Your task to perform on an android device: Search for "asus rog" on bestbuy.com, select the first entry, add it to the cart, then select checkout. Image 0: 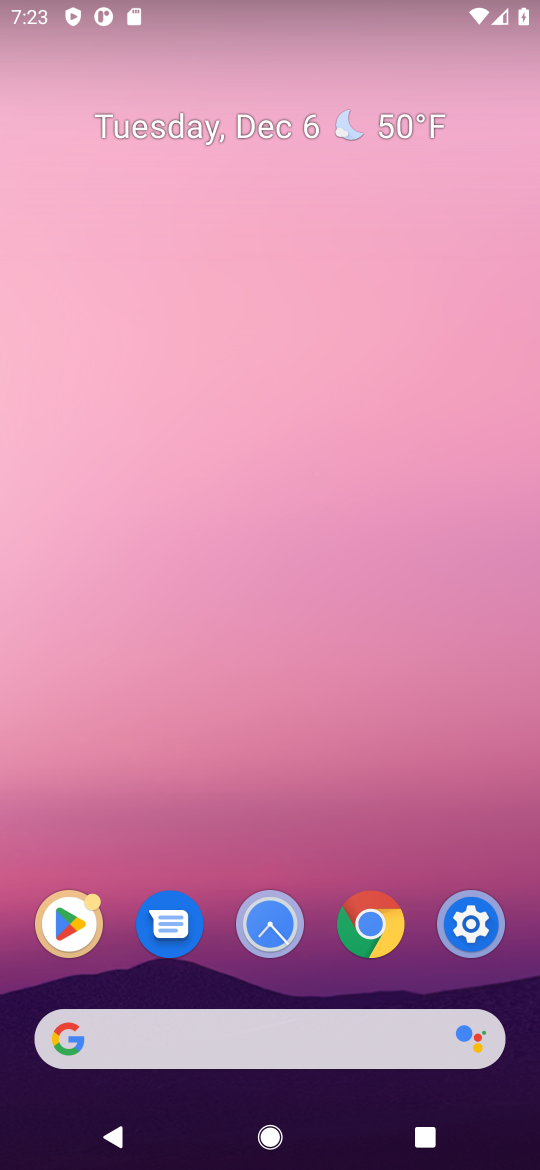
Step 0: click (266, 1061)
Your task to perform on an android device: Search for "asus rog" on bestbuy.com, select the first entry, add it to the cart, then select checkout. Image 1: 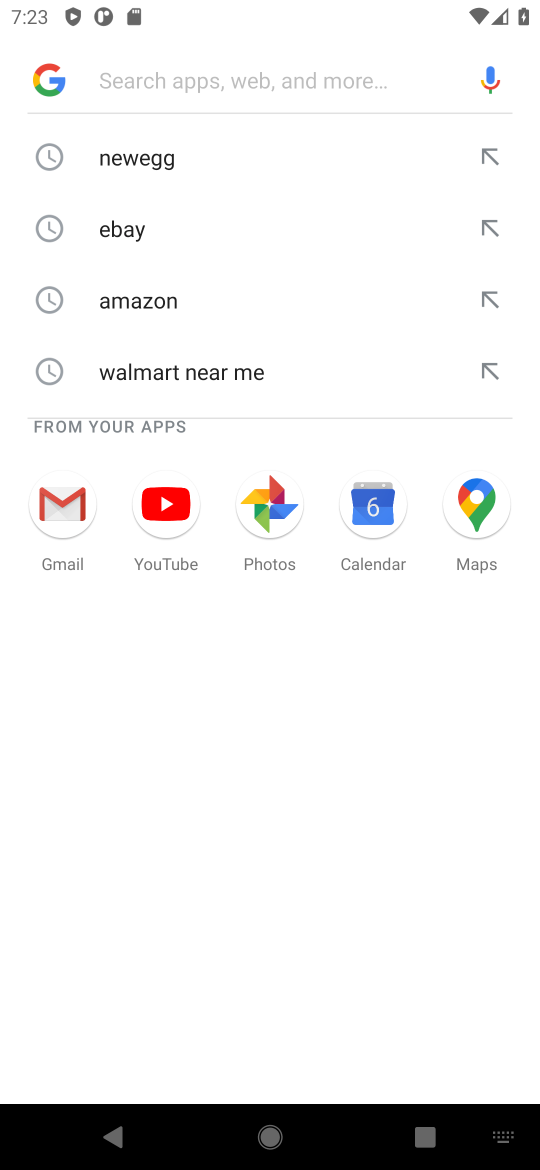
Step 1: type "bestbuy"
Your task to perform on an android device: Search for "asus rog" on bestbuy.com, select the first entry, add it to the cart, then select checkout. Image 2: 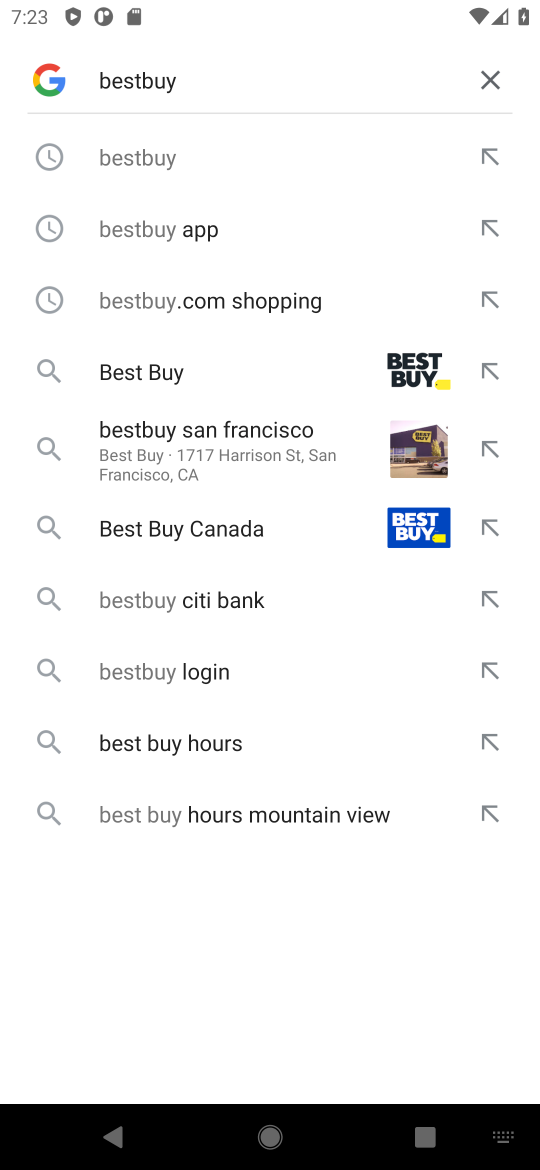
Step 2: click (150, 149)
Your task to perform on an android device: Search for "asus rog" on bestbuy.com, select the first entry, add it to the cart, then select checkout. Image 3: 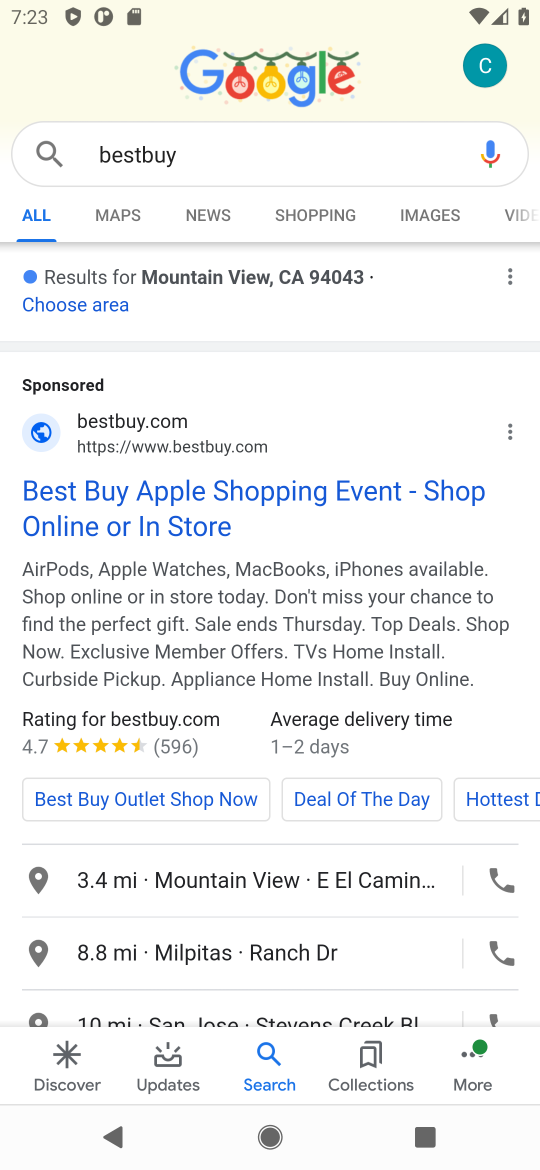
Step 3: click (134, 505)
Your task to perform on an android device: Search for "asus rog" on bestbuy.com, select the first entry, add it to the cart, then select checkout. Image 4: 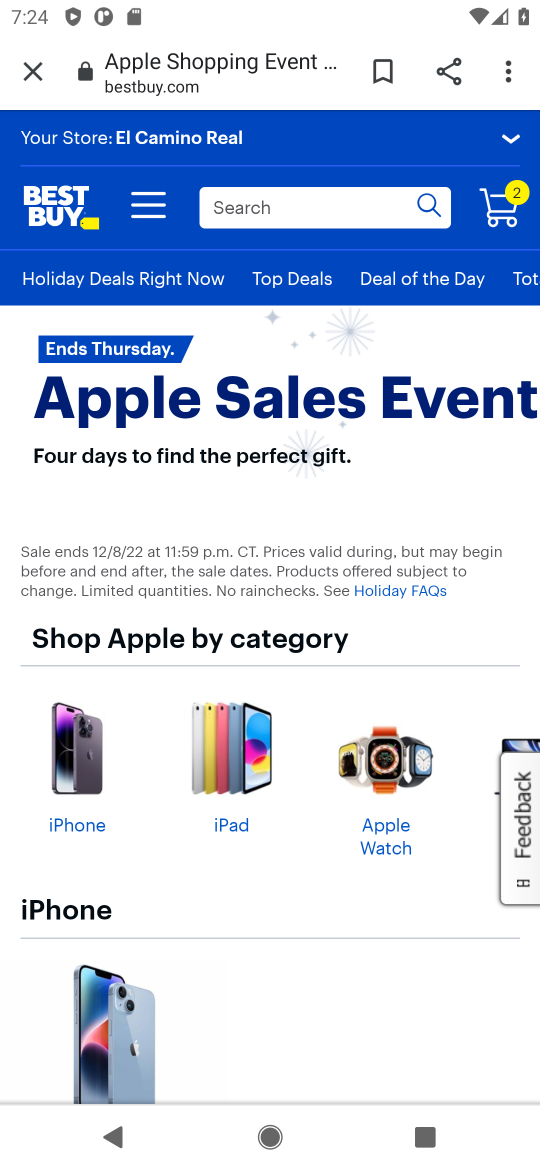
Step 4: click (228, 203)
Your task to perform on an android device: Search for "asus rog" on bestbuy.com, select the first entry, add it to the cart, then select checkout. Image 5: 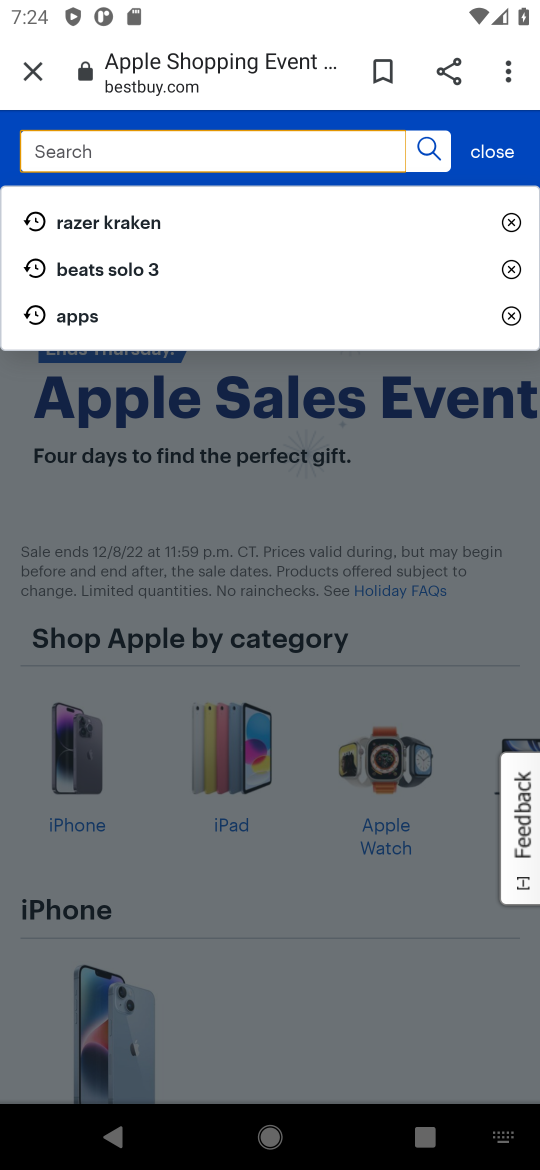
Step 5: type "asus rog"
Your task to perform on an android device: Search for "asus rog" on bestbuy.com, select the first entry, add it to the cart, then select checkout. Image 6: 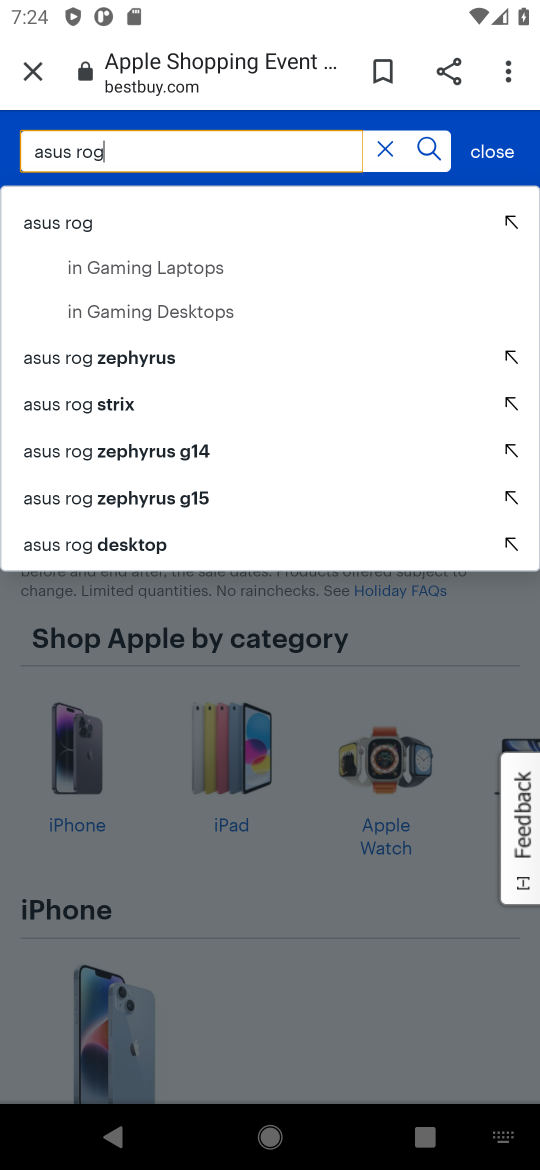
Step 6: click (192, 224)
Your task to perform on an android device: Search for "asus rog" on bestbuy.com, select the first entry, add it to the cart, then select checkout. Image 7: 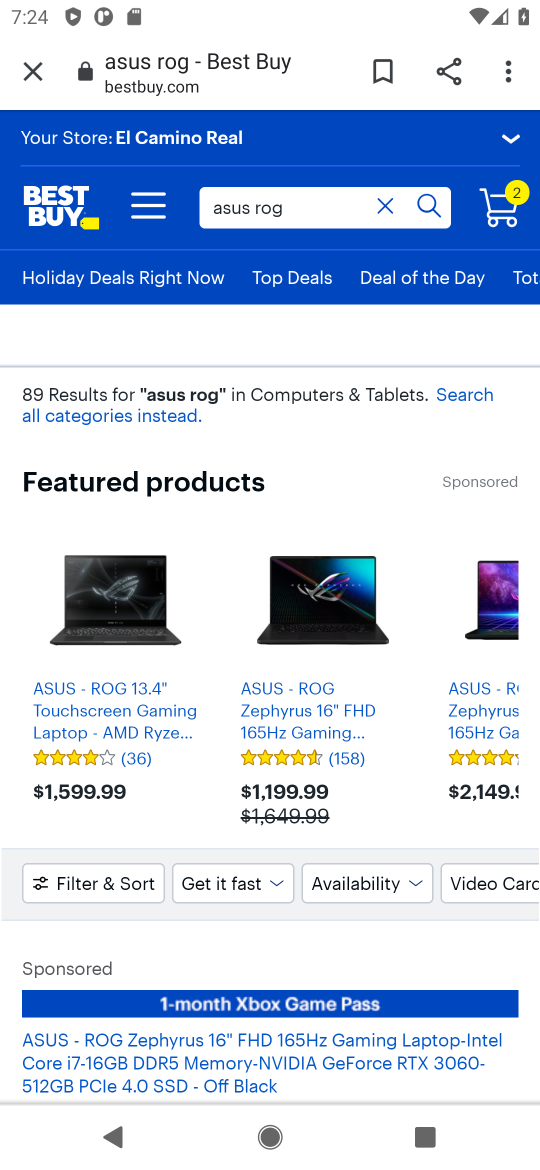
Step 7: click (97, 704)
Your task to perform on an android device: Search for "asus rog" on bestbuy.com, select the first entry, add it to the cart, then select checkout. Image 8: 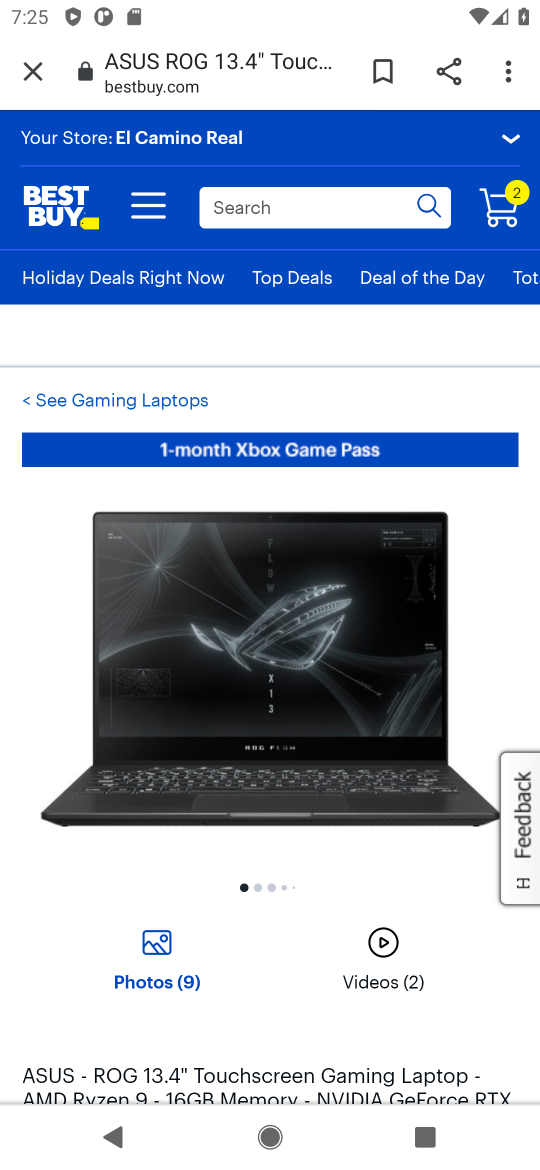
Step 8: drag from (234, 1028) to (236, 433)
Your task to perform on an android device: Search for "asus rog" on bestbuy.com, select the first entry, add it to the cart, then select checkout. Image 9: 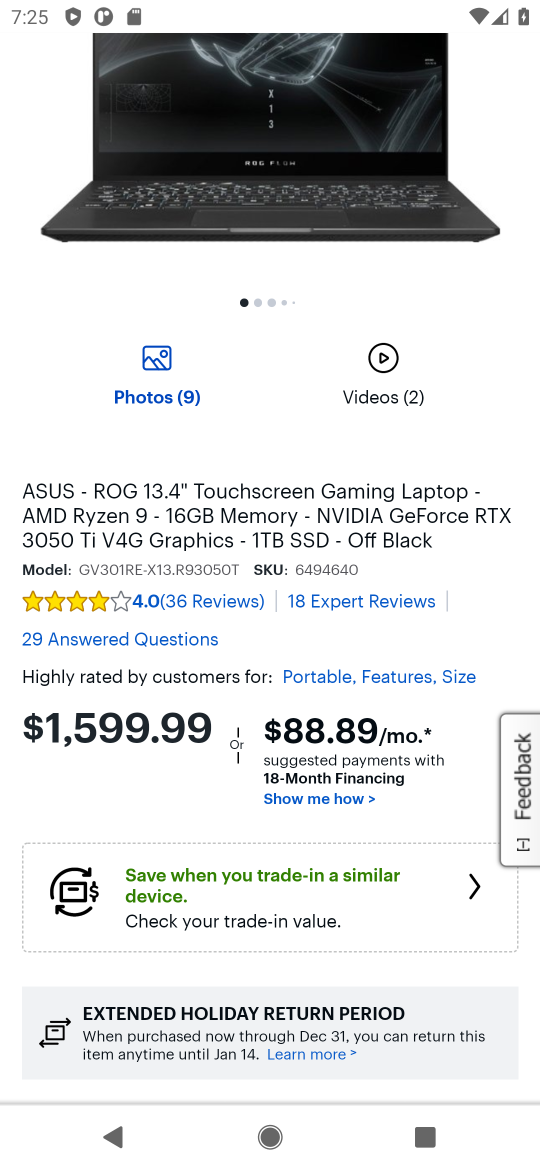
Step 9: drag from (197, 816) to (217, 60)
Your task to perform on an android device: Search for "asus rog" on bestbuy.com, select the first entry, add it to the cart, then select checkout. Image 10: 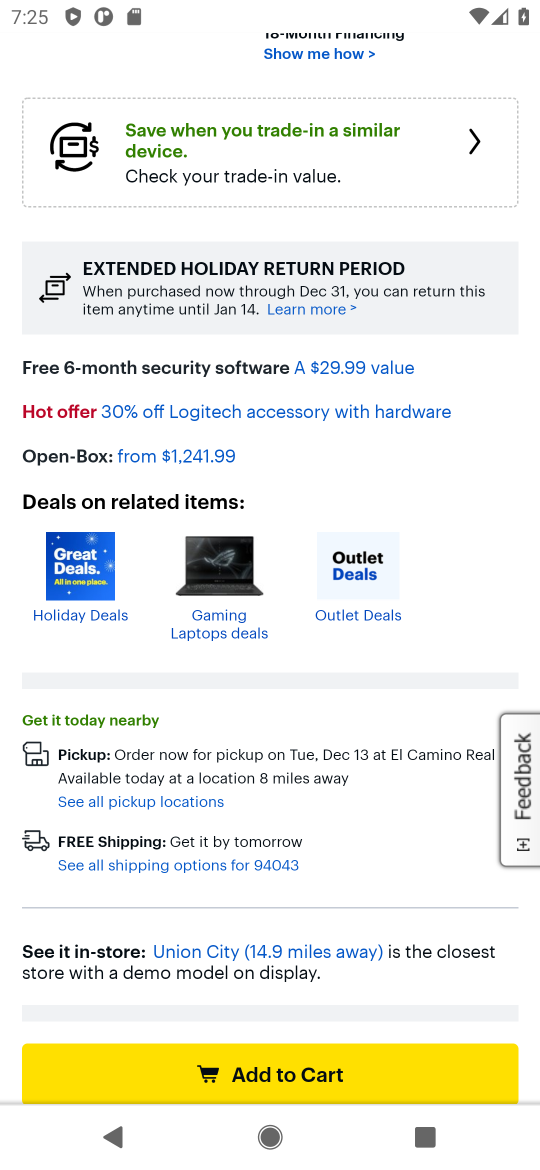
Step 10: drag from (338, 918) to (317, 739)
Your task to perform on an android device: Search for "asus rog" on bestbuy.com, select the first entry, add it to the cart, then select checkout. Image 11: 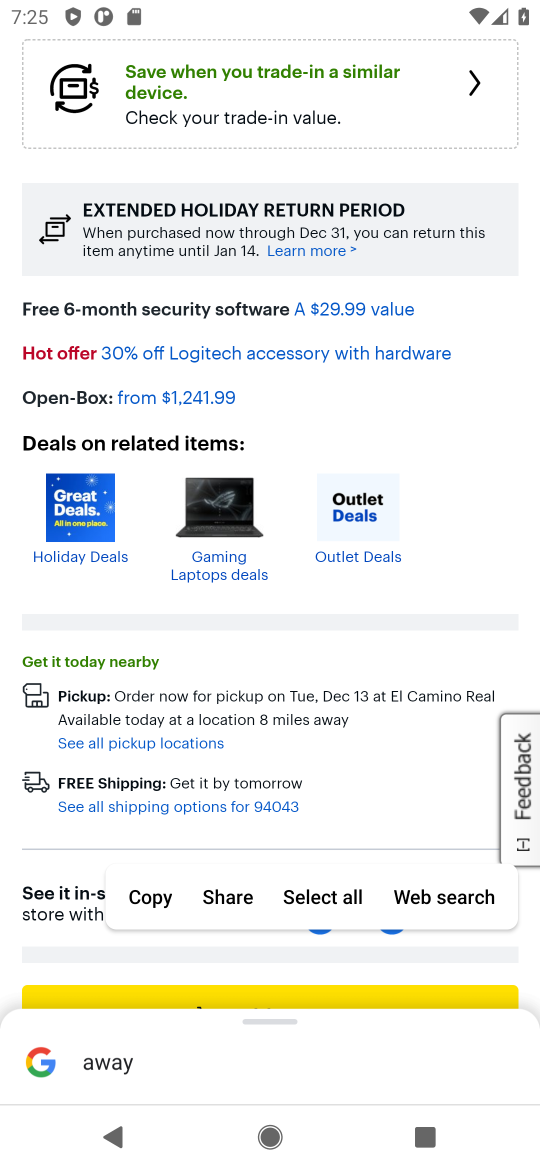
Step 11: click (369, 778)
Your task to perform on an android device: Search for "asus rog" on bestbuy.com, select the first entry, add it to the cart, then select checkout. Image 12: 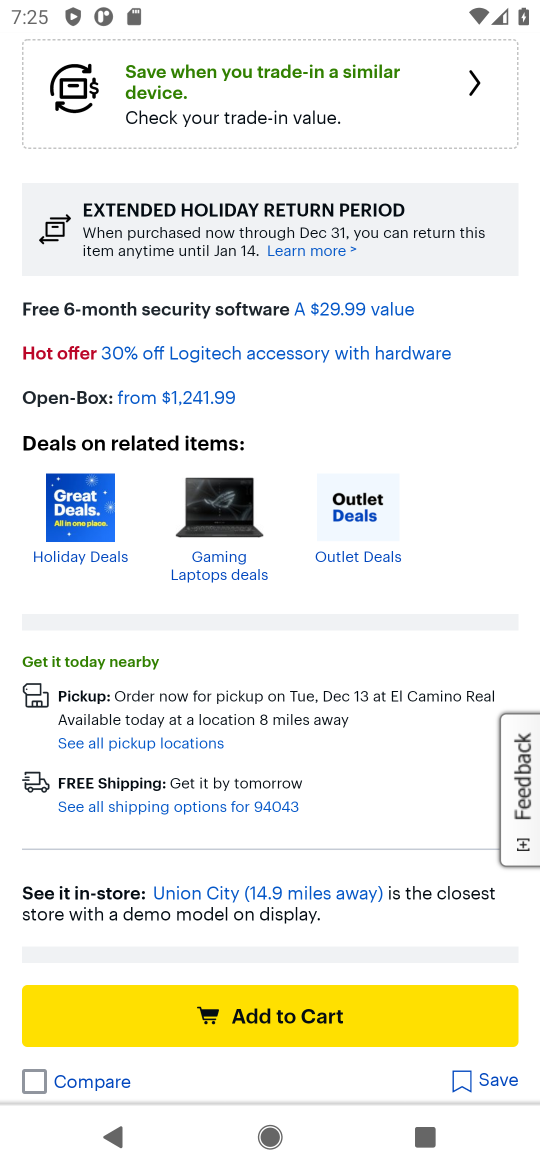
Step 12: click (385, 996)
Your task to perform on an android device: Search for "asus rog" on bestbuy.com, select the first entry, add it to the cart, then select checkout. Image 13: 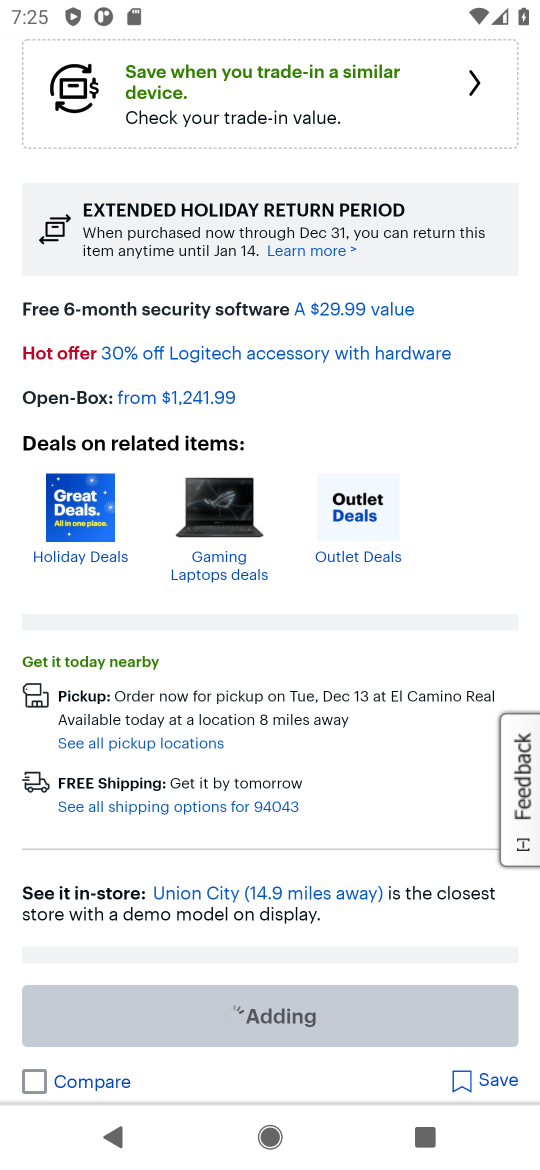
Step 13: task complete